Your task to perform on an android device: turn pop-ups off in chrome Image 0: 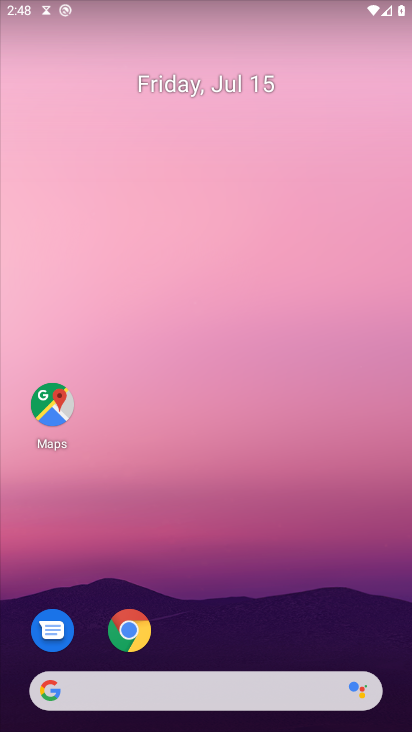
Step 0: press home button
Your task to perform on an android device: turn pop-ups off in chrome Image 1: 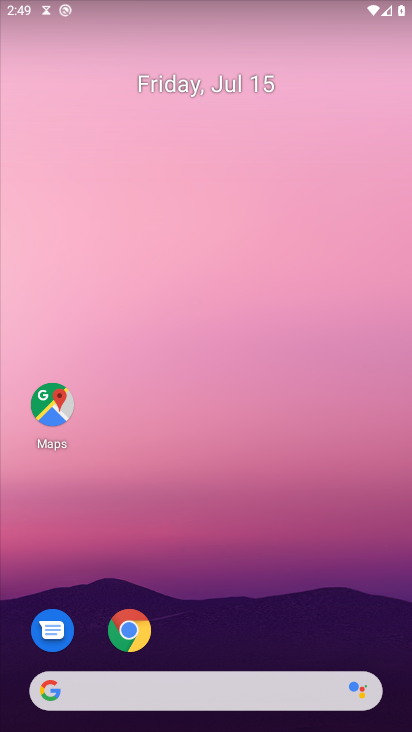
Step 1: drag from (251, 631) to (210, 36)
Your task to perform on an android device: turn pop-ups off in chrome Image 2: 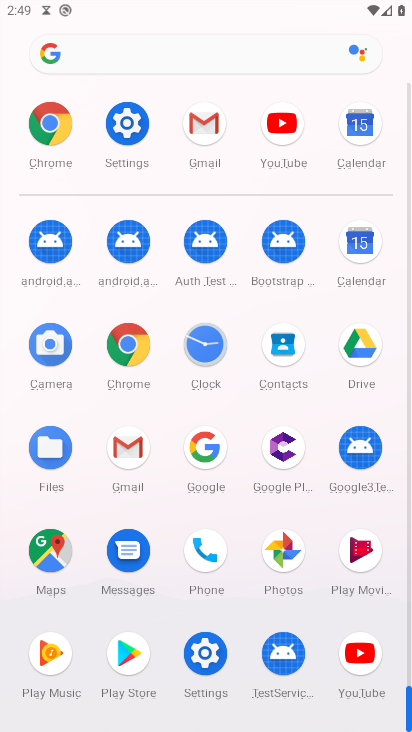
Step 2: click (48, 133)
Your task to perform on an android device: turn pop-ups off in chrome Image 3: 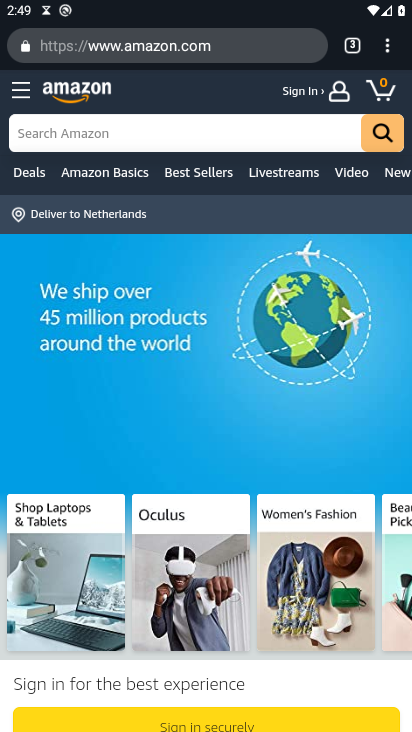
Step 3: drag from (379, 40) to (244, 552)
Your task to perform on an android device: turn pop-ups off in chrome Image 4: 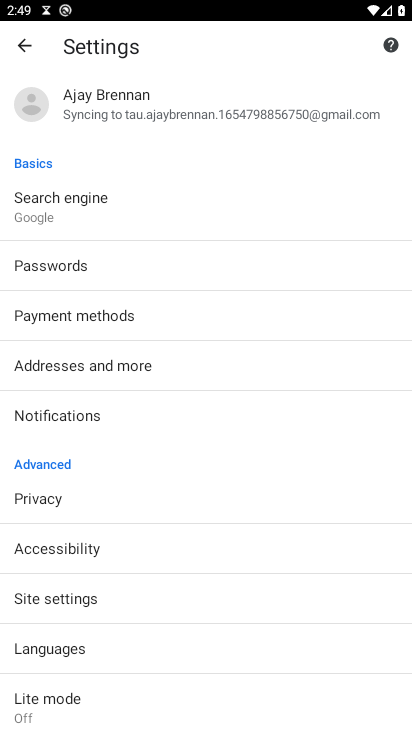
Step 4: click (49, 598)
Your task to perform on an android device: turn pop-ups off in chrome Image 5: 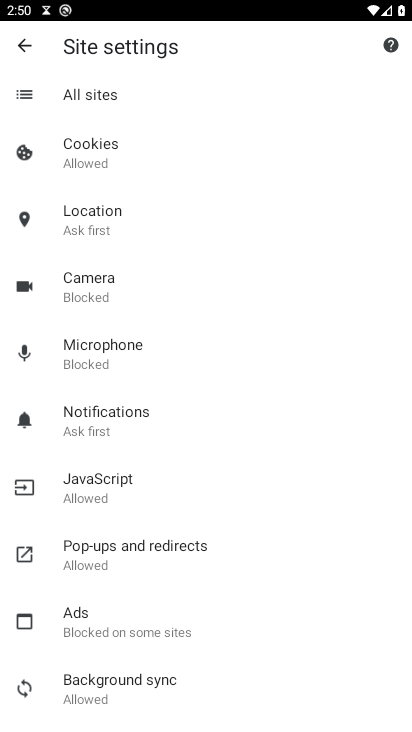
Step 5: click (102, 554)
Your task to perform on an android device: turn pop-ups off in chrome Image 6: 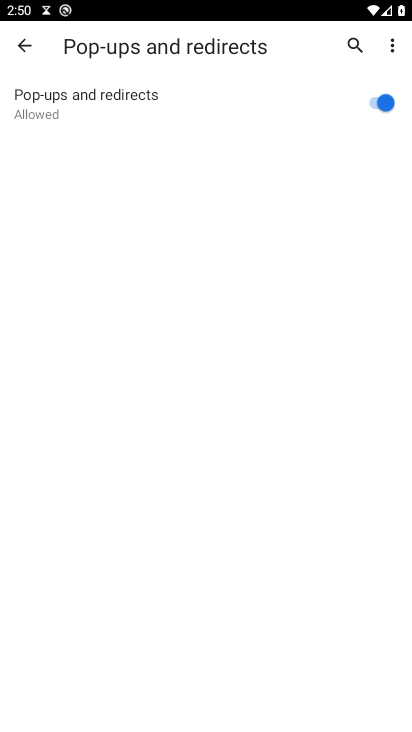
Step 6: click (385, 106)
Your task to perform on an android device: turn pop-ups off in chrome Image 7: 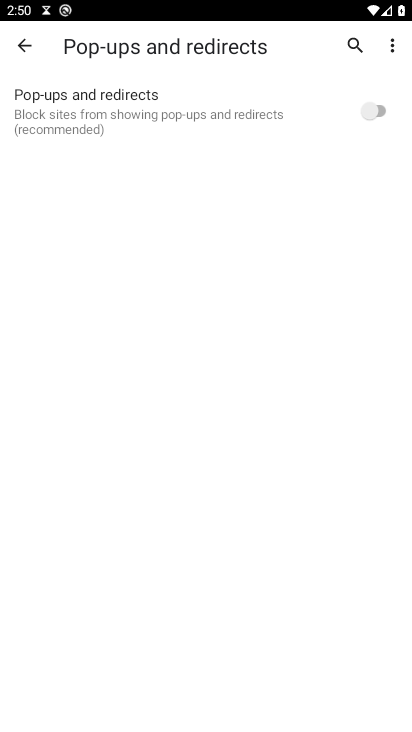
Step 7: task complete